Your task to perform on an android device: Open Google Maps and go to "Timeline" Image 0: 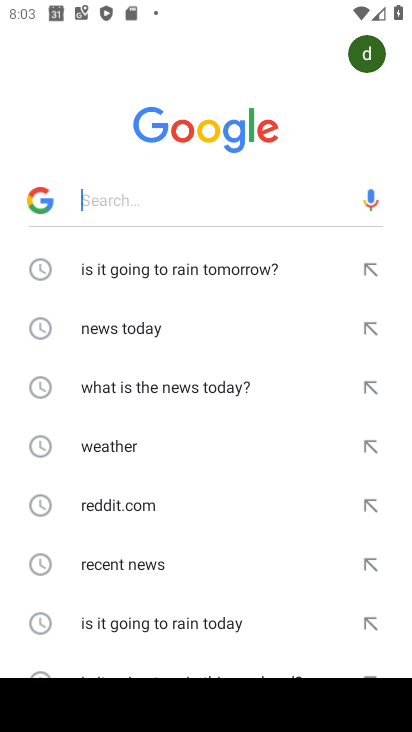
Step 0: press home button
Your task to perform on an android device: Open Google Maps and go to "Timeline" Image 1: 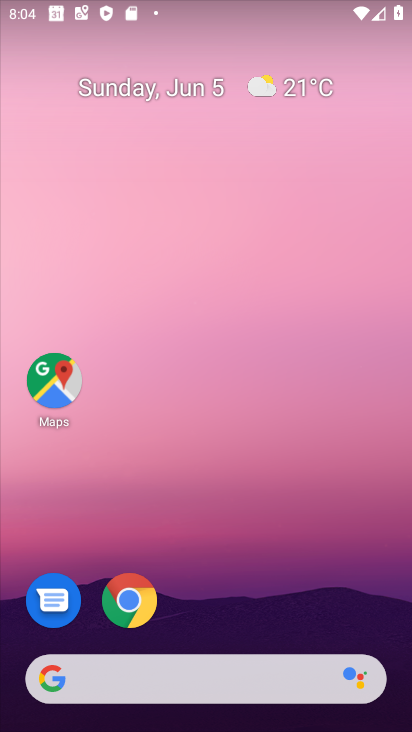
Step 1: click (52, 391)
Your task to perform on an android device: Open Google Maps and go to "Timeline" Image 2: 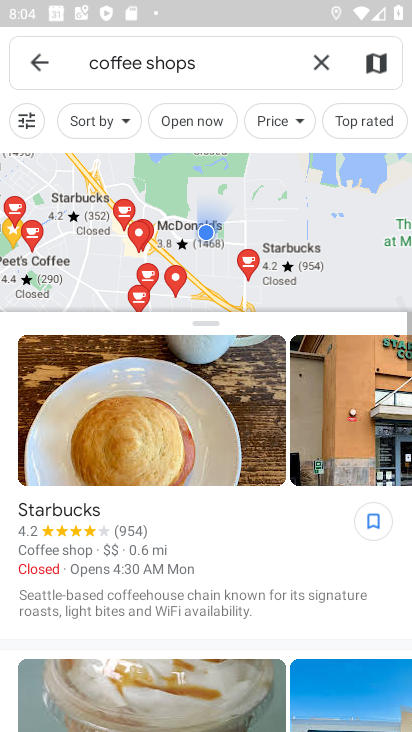
Step 2: click (33, 58)
Your task to perform on an android device: Open Google Maps and go to "Timeline" Image 3: 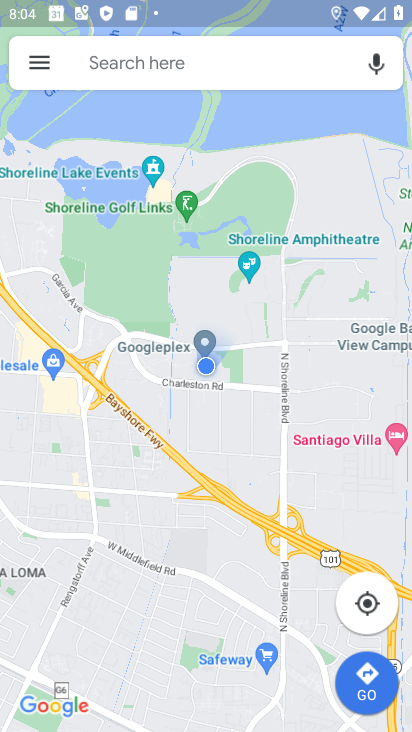
Step 3: click (33, 58)
Your task to perform on an android device: Open Google Maps and go to "Timeline" Image 4: 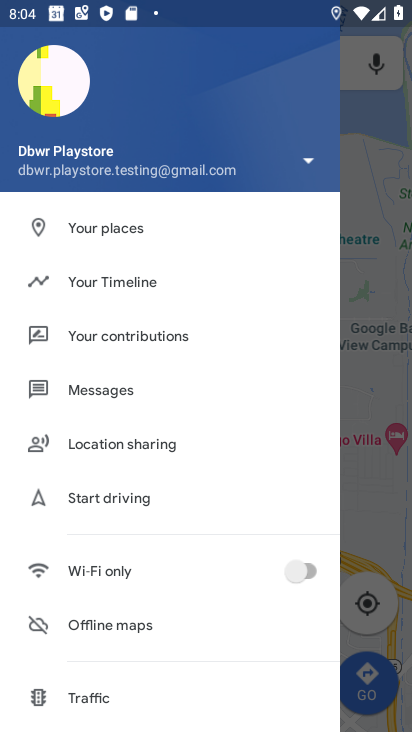
Step 4: click (111, 284)
Your task to perform on an android device: Open Google Maps and go to "Timeline" Image 5: 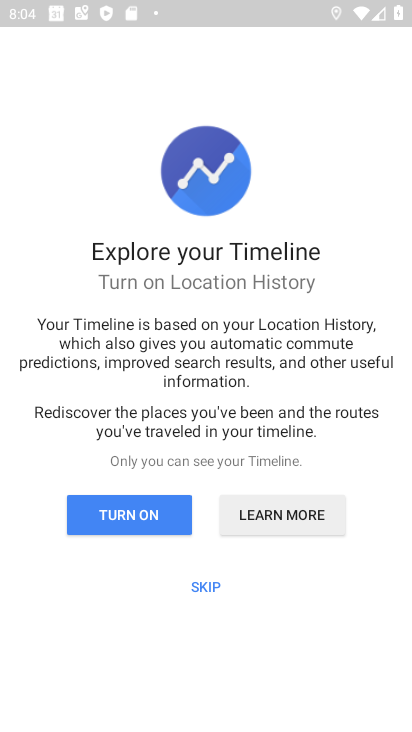
Step 5: click (192, 582)
Your task to perform on an android device: Open Google Maps and go to "Timeline" Image 6: 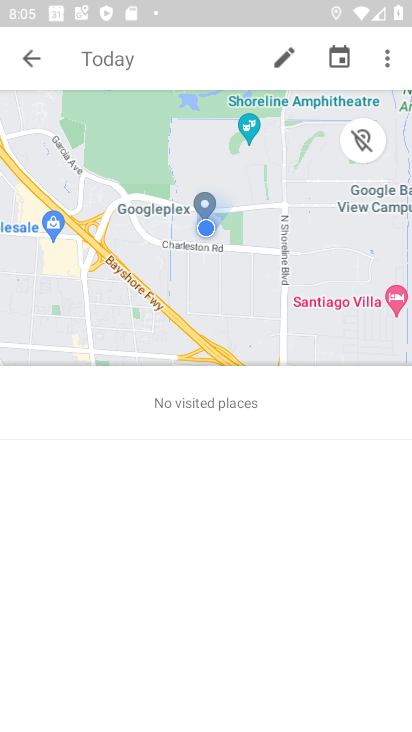
Step 6: task complete